Your task to perform on an android device: turn pop-ups off in chrome Image 0: 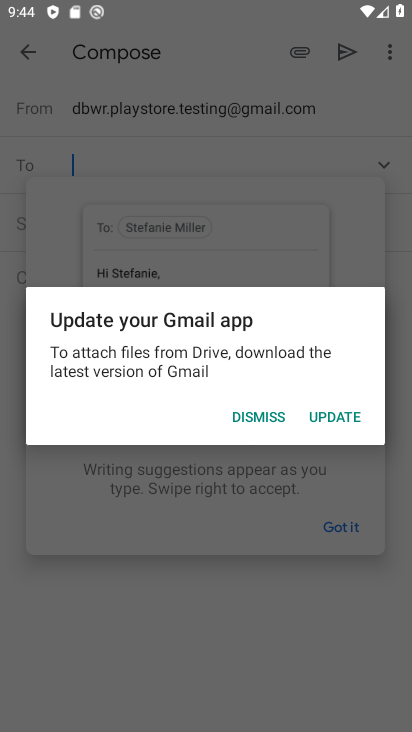
Step 0: press home button
Your task to perform on an android device: turn pop-ups off in chrome Image 1: 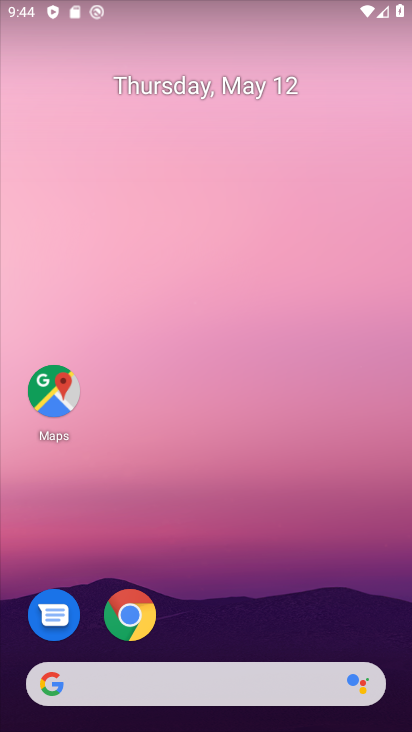
Step 1: click (130, 617)
Your task to perform on an android device: turn pop-ups off in chrome Image 2: 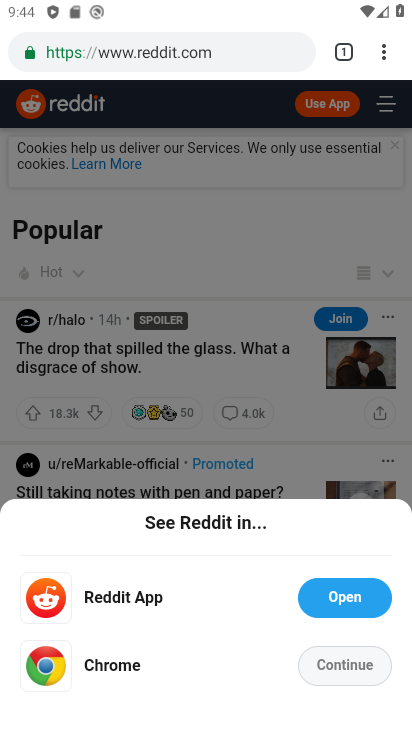
Step 2: click (381, 53)
Your task to perform on an android device: turn pop-ups off in chrome Image 3: 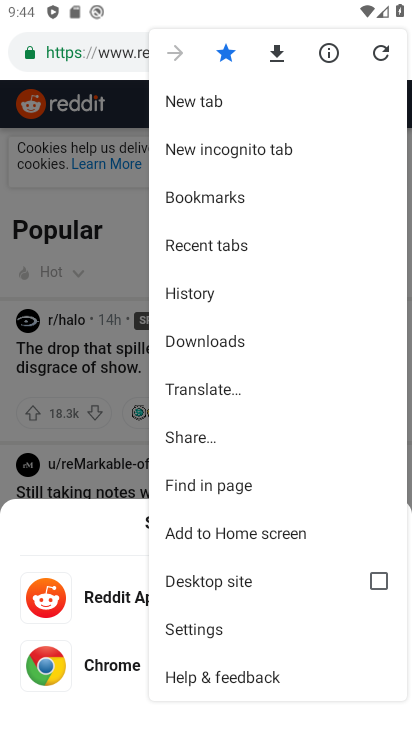
Step 3: click (176, 625)
Your task to perform on an android device: turn pop-ups off in chrome Image 4: 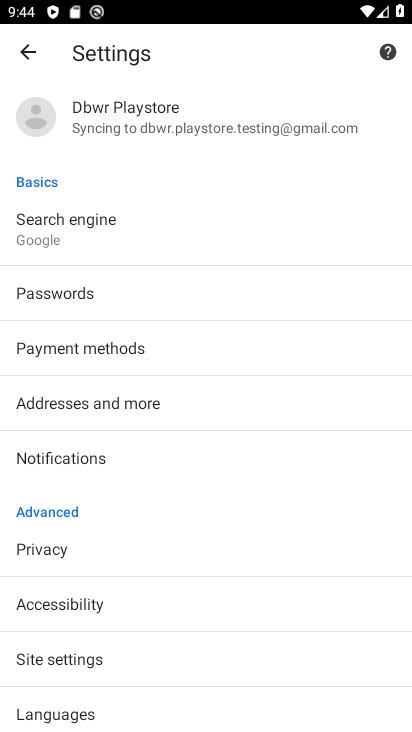
Step 4: click (64, 663)
Your task to perform on an android device: turn pop-ups off in chrome Image 5: 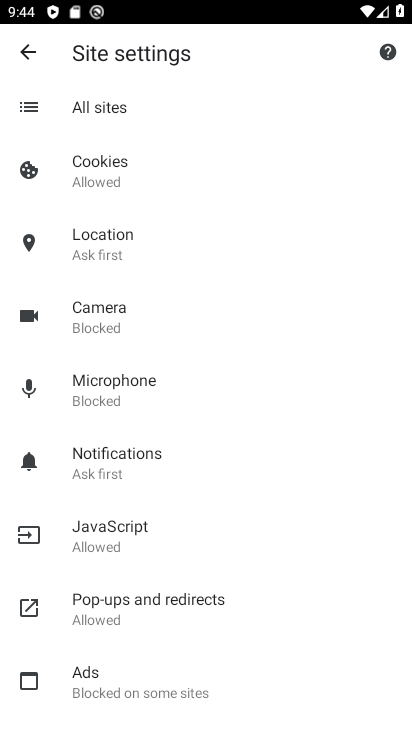
Step 5: click (111, 600)
Your task to perform on an android device: turn pop-ups off in chrome Image 6: 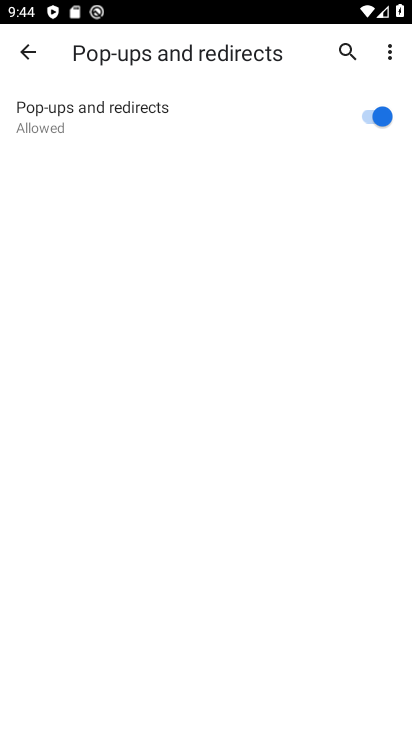
Step 6: click (369, 120)
Your task to perform on an android device: turn pop-ups off in chrome Image 7: 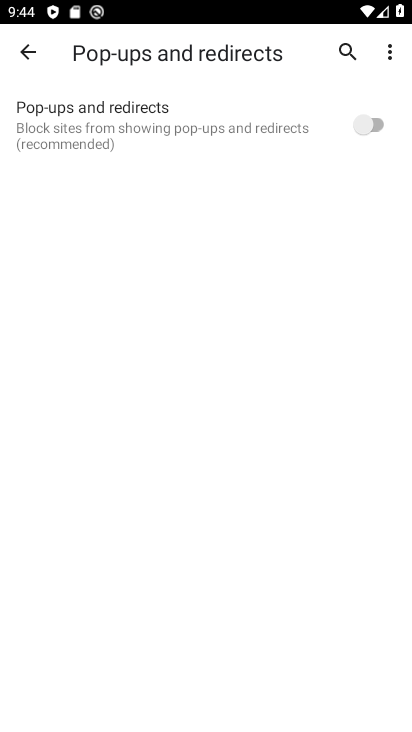
Step 7: task complete